Your task to perform on an android device: turn notification dots off Image 0: 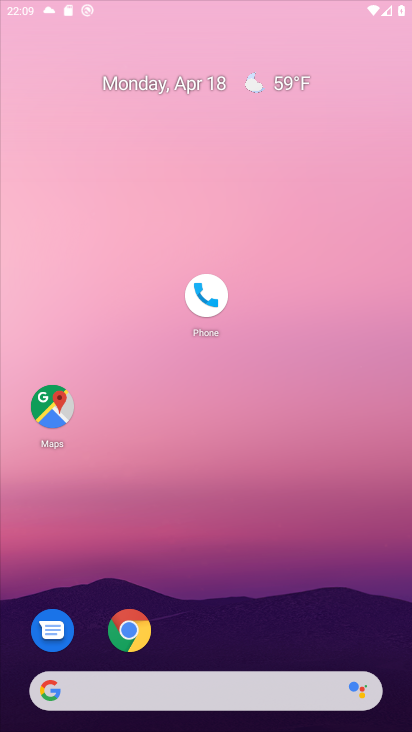
Step 0: drag from (238, 632) to (281, 127)
Your task to perform on an android device: turn notification dots off Image 1: 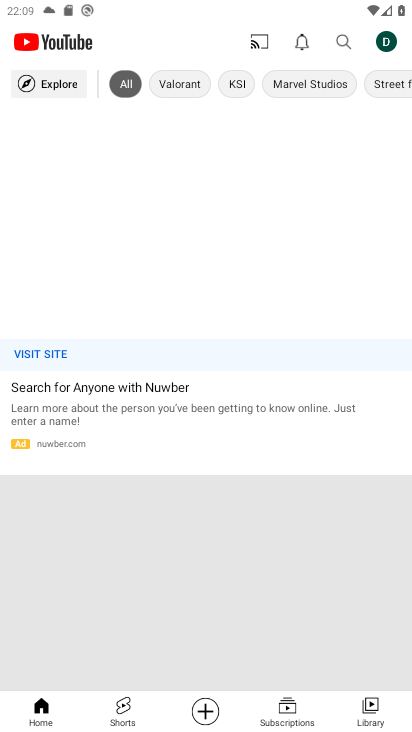
Step 1: press home button
Your task to perform on an android device: turn notification dots off Image 2: 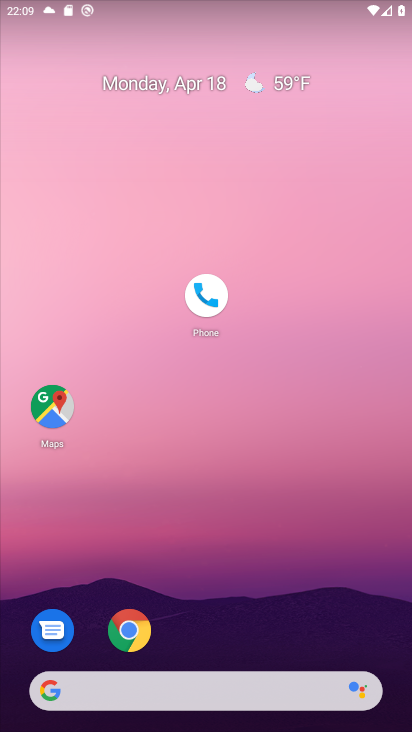
Step 2: drag from (212, 654) to (263, 206)
Your task to perform on an android device: turn notification dots off Image 3: 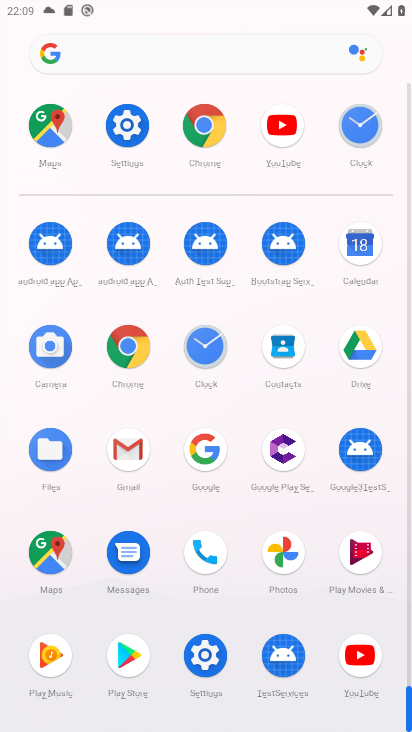
Step 3: click (135, 127)
Your task to perform on an android device: turn notification dots off Image 4: 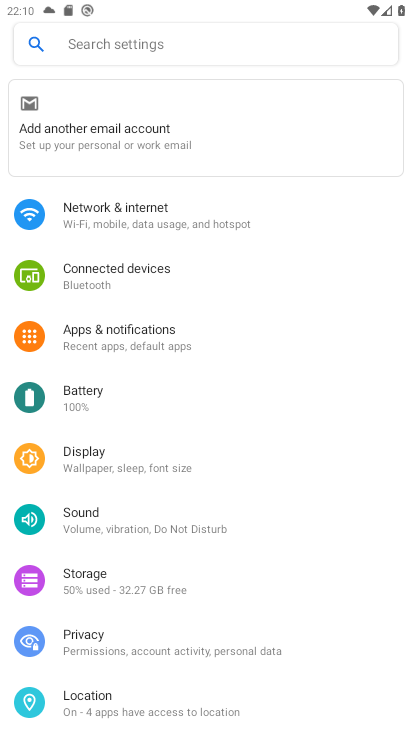
Step 4: click (143, 694)
Your task to perform on an android device: turn notification dots off Image 5: 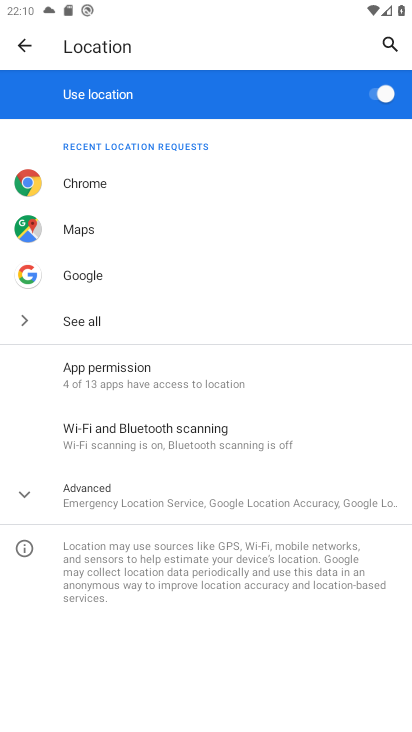
Step 5: click (142, 394)
Your task to perform on an android device: turn notification dots off Image 6: 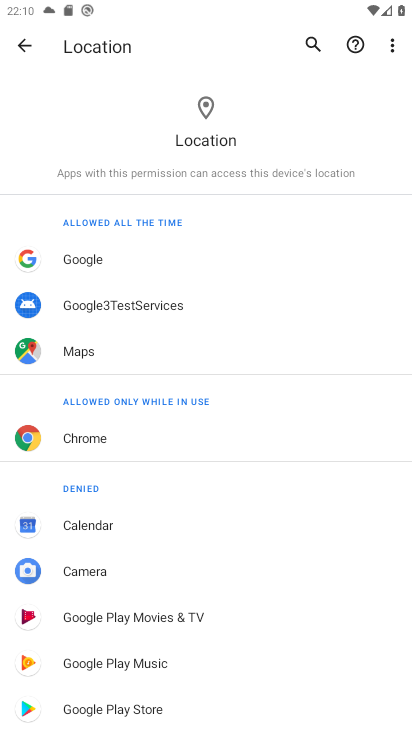
Step 6: task complete